Your task to perform on an android device: change the clock display to show seconds Image 0: 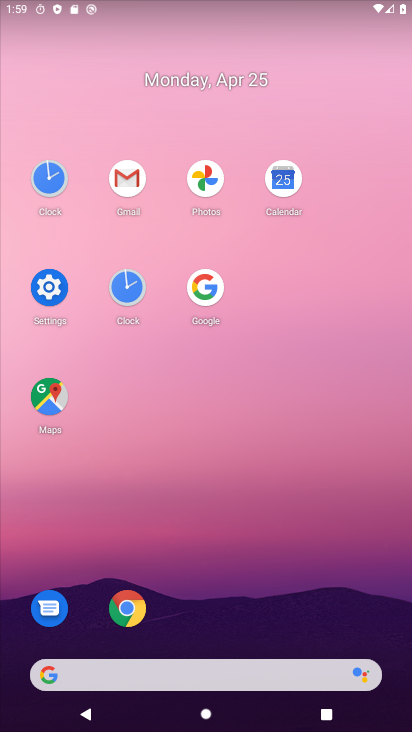
Step 0: click (125, 298)
Your task to perform on an android device: change the clock display to show seconds Image 1: 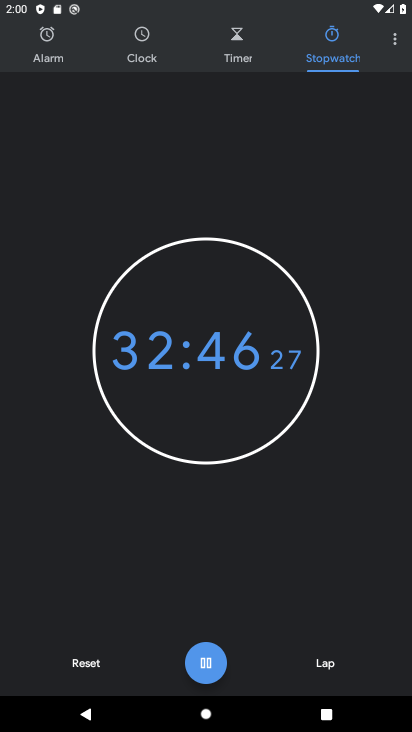
Step 1: click (399, 48)
Your task to perform on an android device: change the clock display to show seconds Image 2: 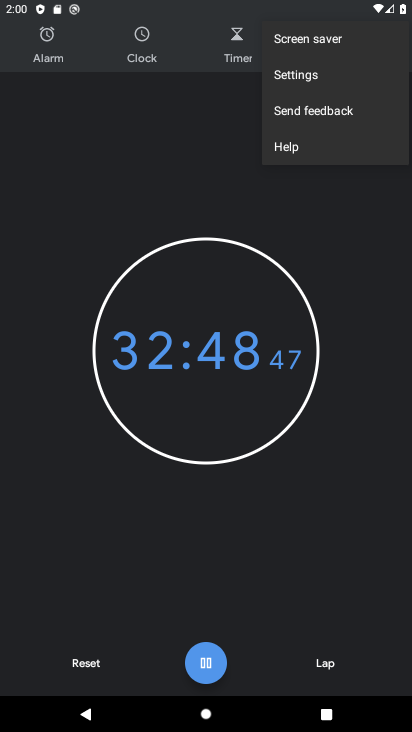
Step 2: click (316, 82)
Your task to perform on an android device: change the clock display to show seconds Image 3: 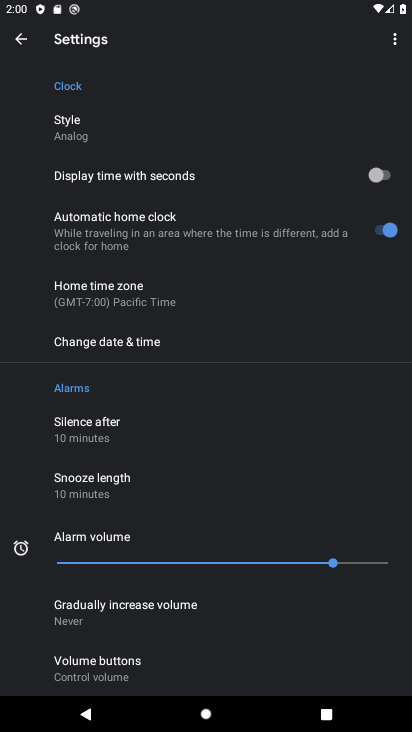
Step 3: click (362, 177)
Your task to perform on an android device: change the clock display to show seconds Image 4: 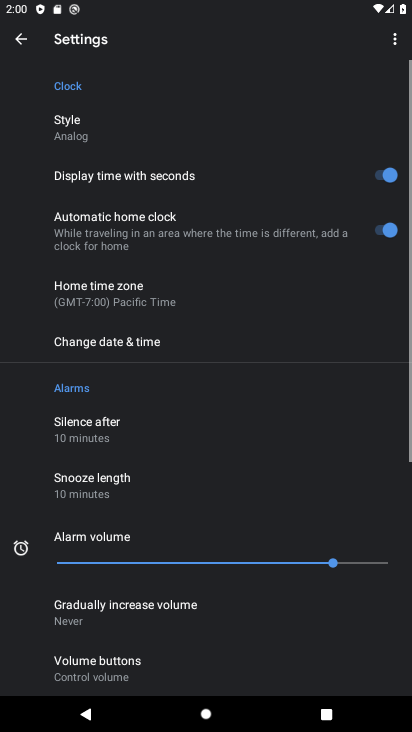
Step 4: task complete